Your task to perform on an android device: Open ESPN.com Image 0: 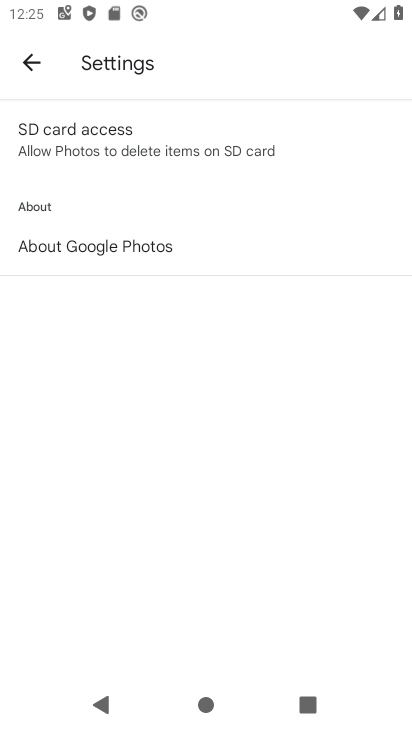
Step 0: press home button
Your task to perform on an android device: Open ESPN.com Image 1: 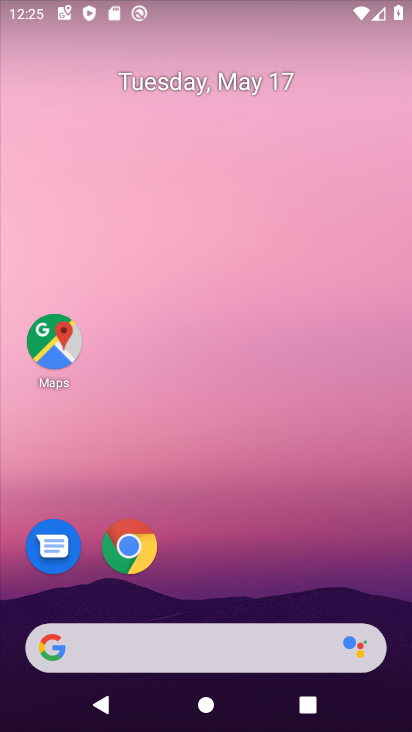
Step 1: click (132, 550)
Your task to perform on an android device: Open ESPN.com Image 2: 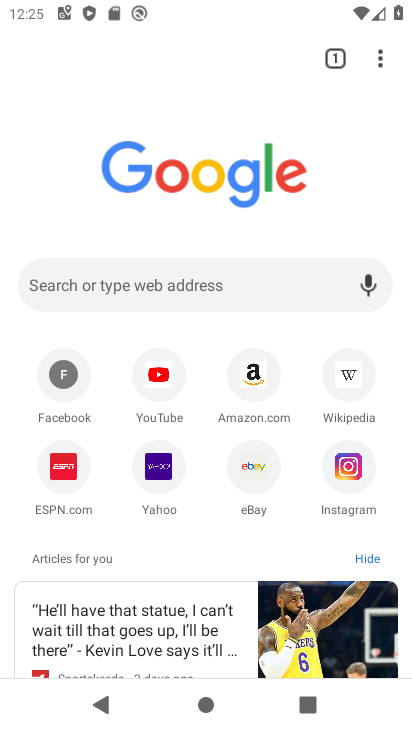
Step 2: click (90, 282)
Your task to perform on an android device: Open ESPN.com Image 3: 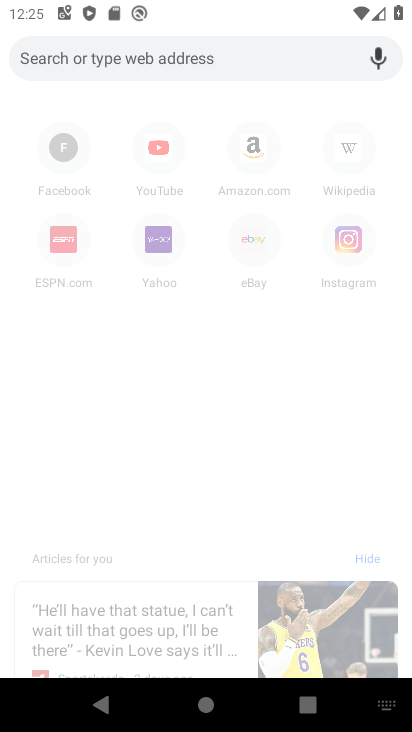
Step 3: type "espn.com"
Your task to perform on an android device: Open ESPN.com Image 4: 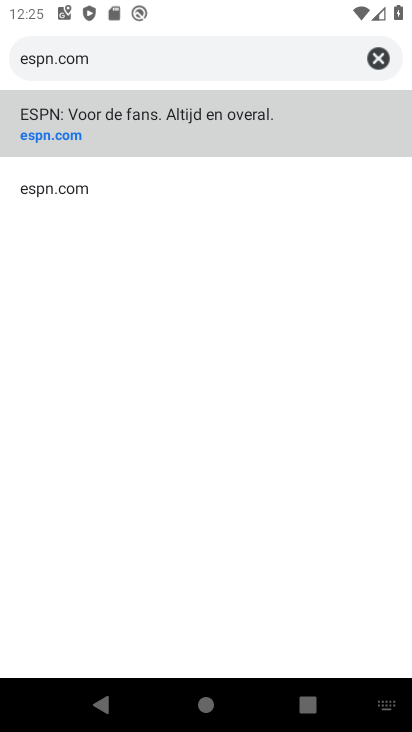
Step 4: click (59, 127)
Your task to perform on an android device: Open ESPN.com Image 5: 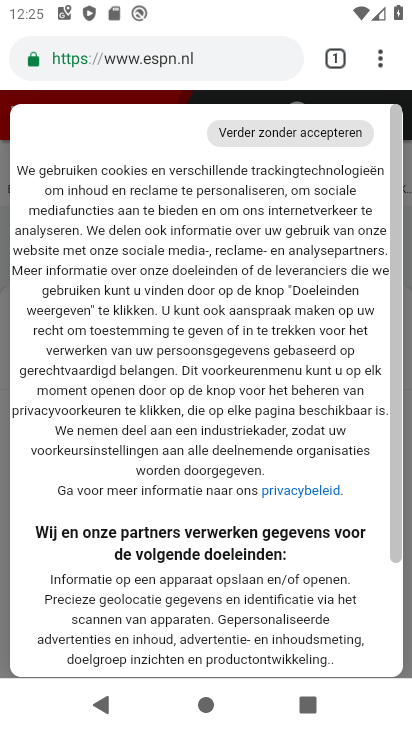
Step 5: task complete